Your task to perform on an android device: delete a single message in the gmail app Image 0: 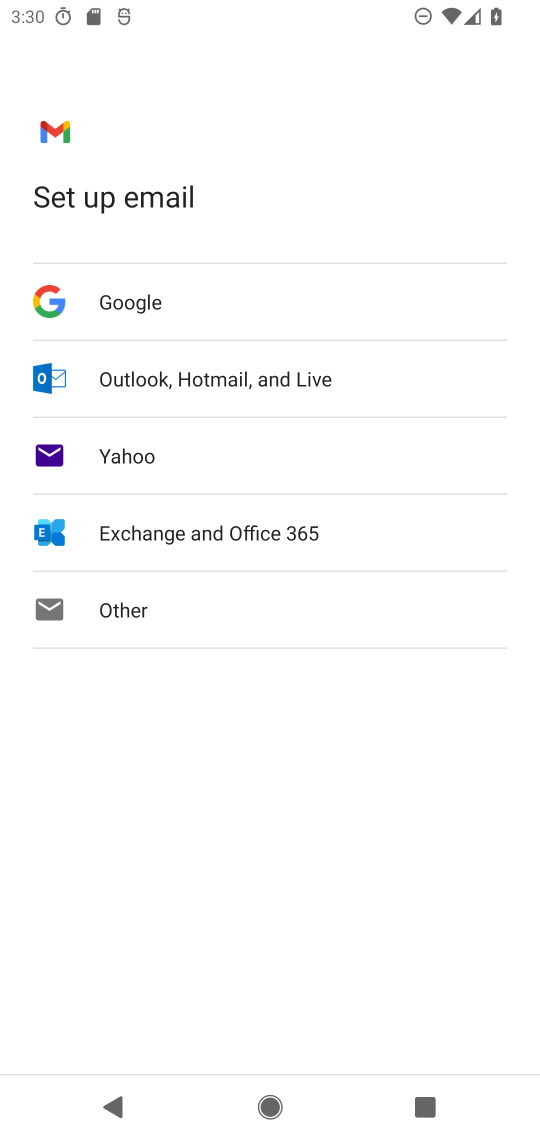
Step 0: press home button
Your task to perform on an android device: delete a single message in the gmail app Image 1: 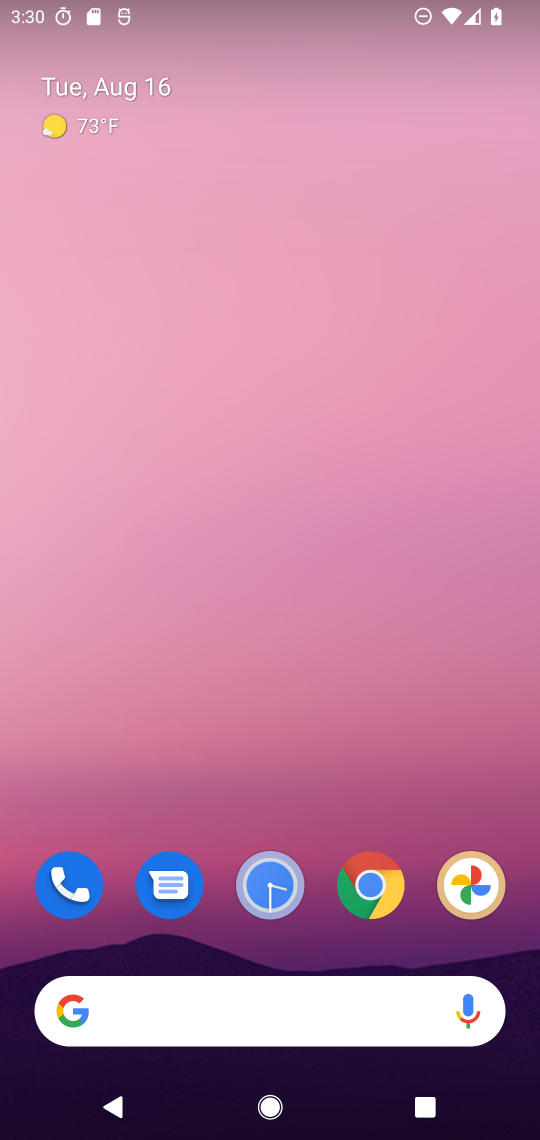
Step 1: drag from (301, 1057) to (301, 156)
Your task to perform on an android device: delete a single message in the gmail app Image 2: 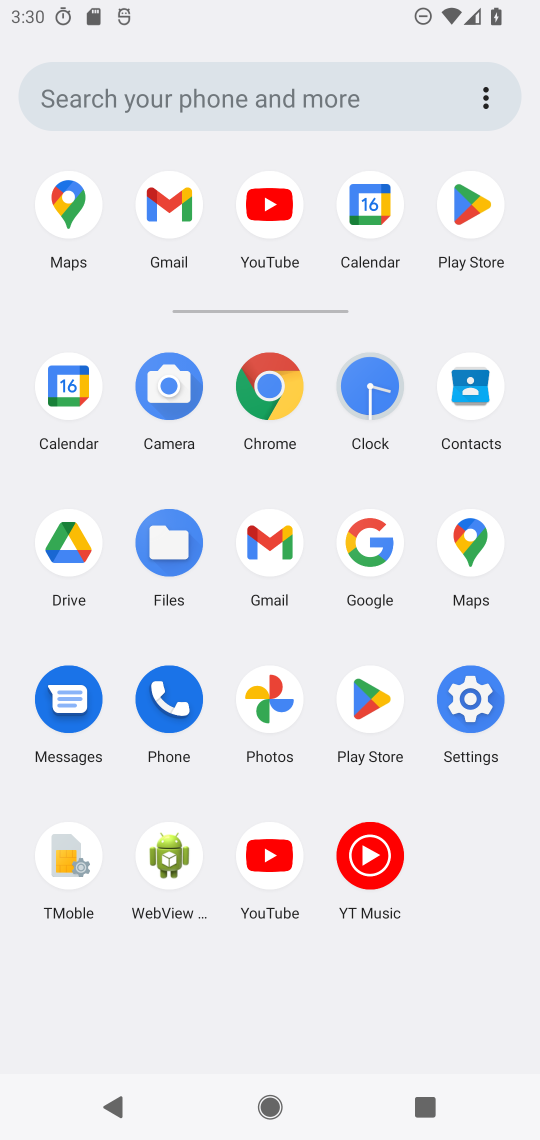
Step 2: click (152, 186)
Your task to perform on an android device: delete a single message in the gmail app Image 3: 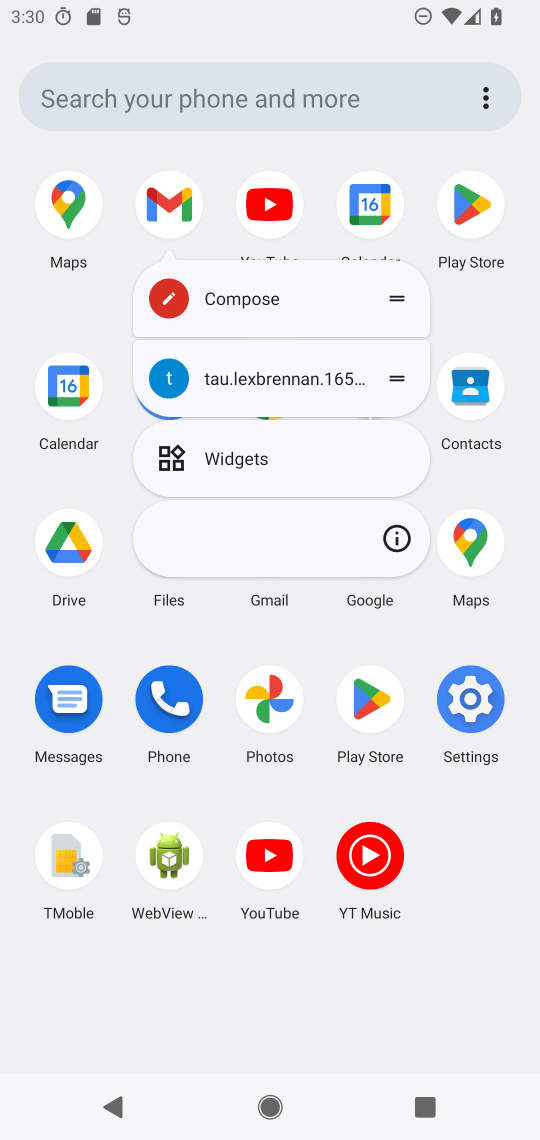
Step 3: click (164, 192)
Your task to perform on an android device: delete a single message in the gmail app Image 4: 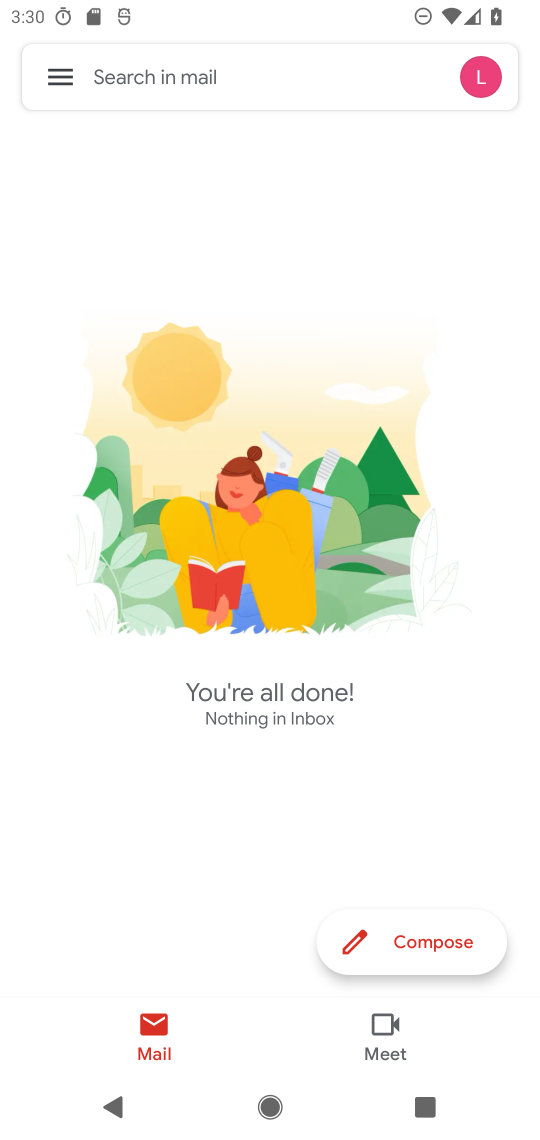
Step 4: click (50, 62)
Your task to perform on an android device: delete a single message in the gmail app Image 5: 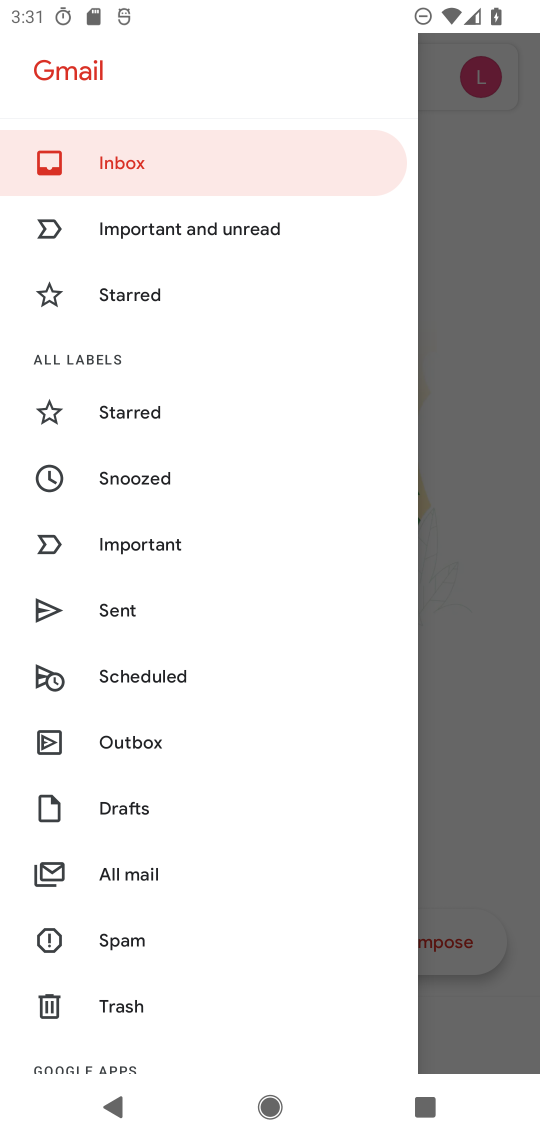
Step 5: click (150, 888)
Your task to perform on an android device: delete a single message in the gmail app Image 6: 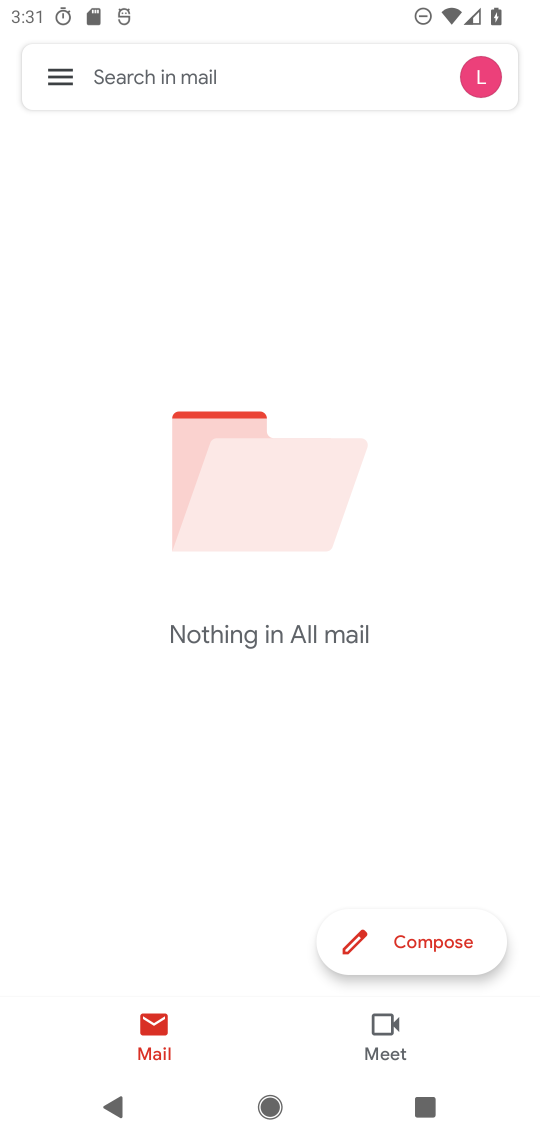
Step 6: task complete